Your task to perform on an android device: What is the news today? Image 0: 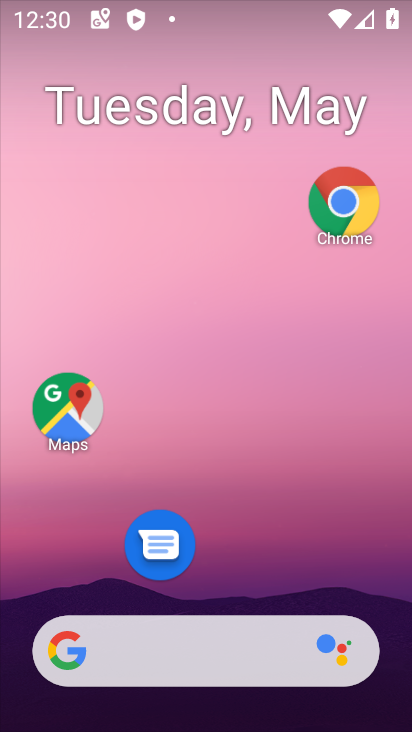
Step 0: click (165, 627)
Your task to perform on an android device: What is the news today? Image 1: 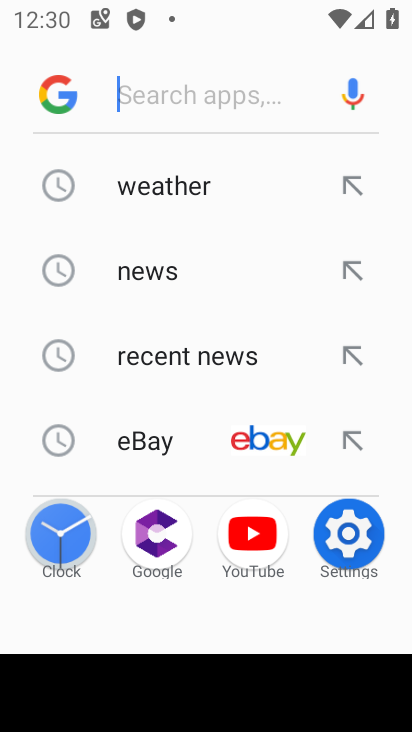
Step 1: click (163, 301)
Your task to perform on an android device: What is the news today? Image 2: 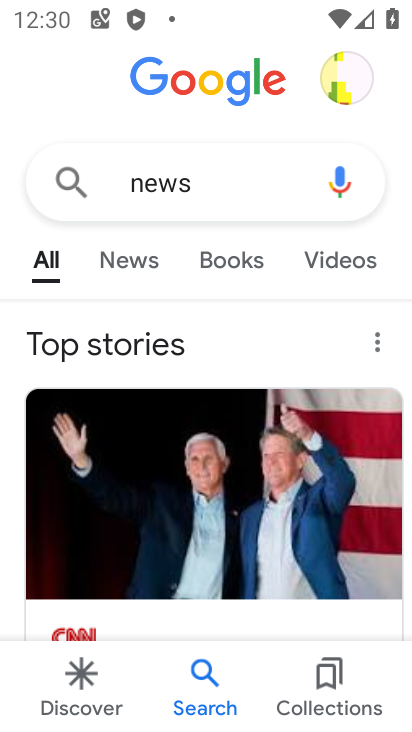
Step 2: task complete